Your task to perform on an android device: Go to calendar. Show me events next week Image 0: 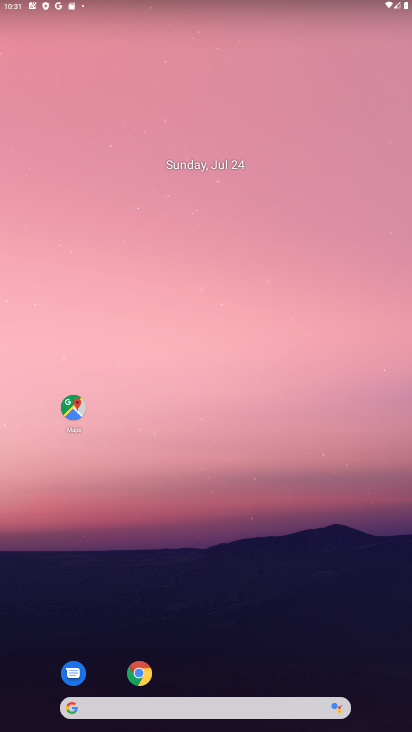
Step 0: drag from (42, 665) to (230, 108)
Your task to perform on an android device: Go to calendar. Show me events next week Image 1: 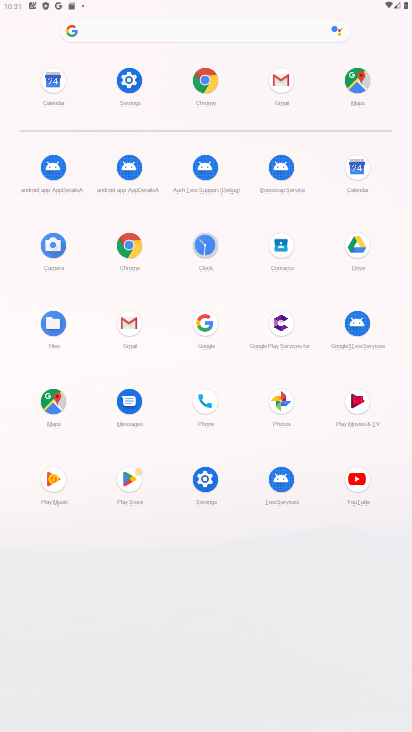
Step 1: click (358, 169)
Your task to perform on an android device: Go to calendar. Show me events next week Image 2: 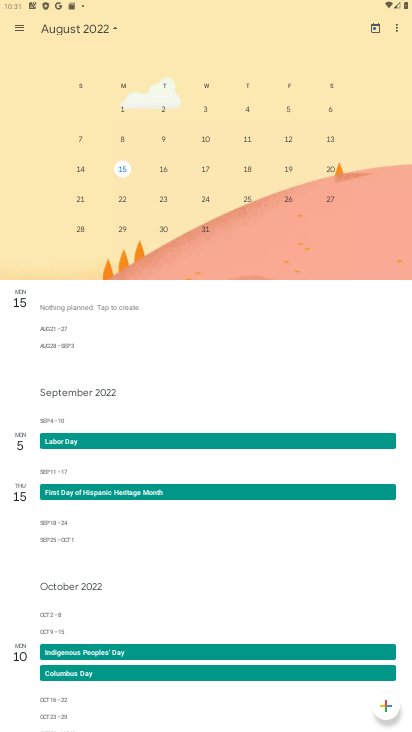
Step 2: task complete